Your task to perform on an android device: allow notifications from all sites in the chrome app Image 0: 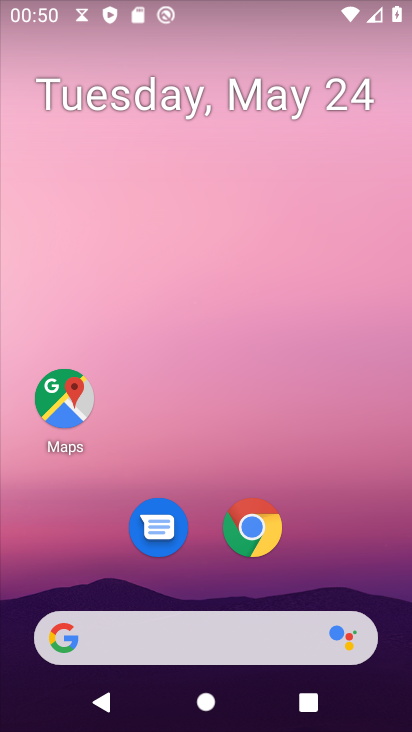
Step 0: drag from (139, 629) to (248, 106)
Your task to perform on an android device: allow notifications from all sites in the chrome app Image 1: 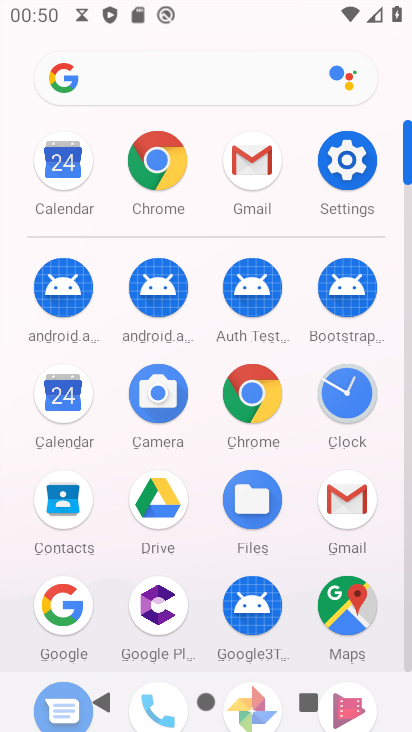
Step 1: click (167, 170)
Your task to perform on an android device: allow notifications from all sites in the chrome app Image 2: 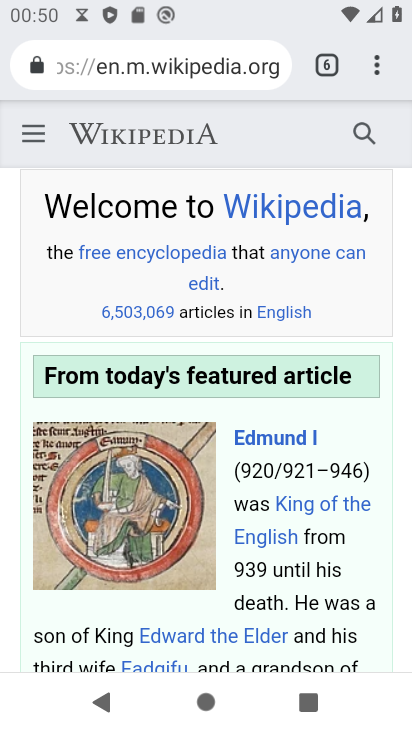
Step 2: drag from (373, 68) to (203, 589)
Your task to perform on an android device: allow notifications from all sites in the chrome app Image 3: 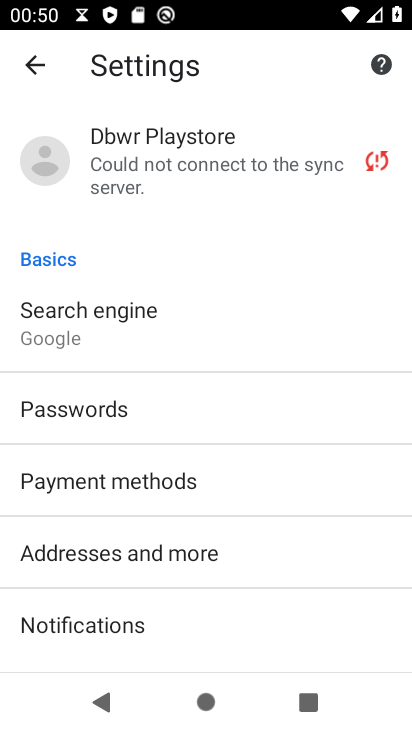
Step 3: drag from (160, 655) to (295, 204)
Your task to perform on an android device: allow notifications from all sites in the chrome app Image 4: 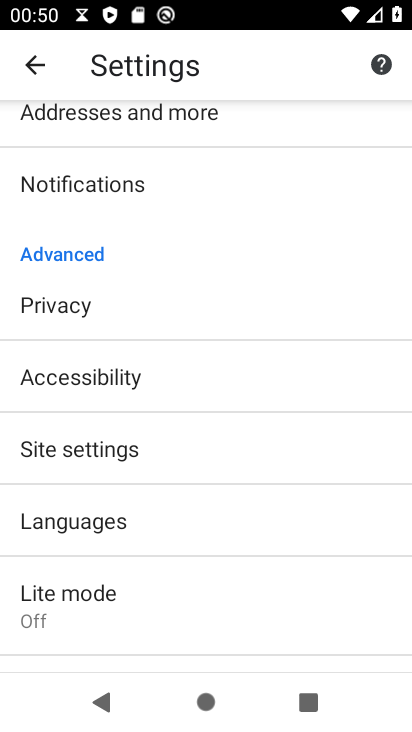
Step 4: click (94, 446)
Your task to perform on an android device: allow notifications from all sites in the chrome app Image 5: 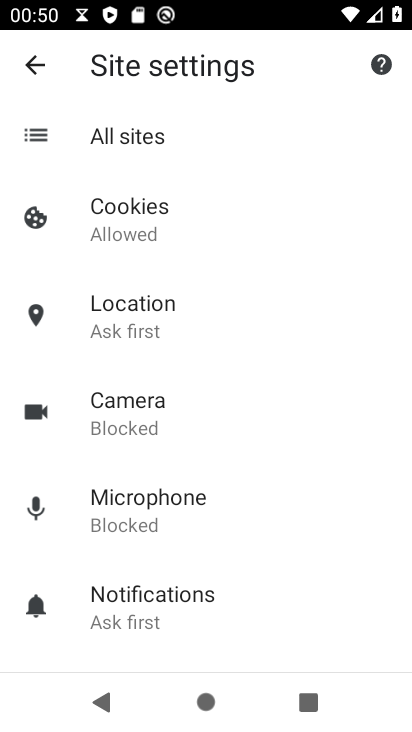
Step 5: click (150, 627)
Your task to perform on an android device: allow notifications from all sites in the chrome app Image 6: 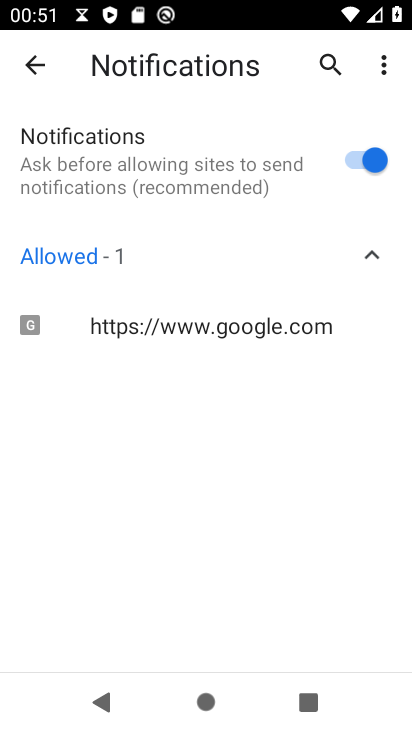
Step 6: task complete